Your task to perform on an android device: change the clock display to digital Image 0: 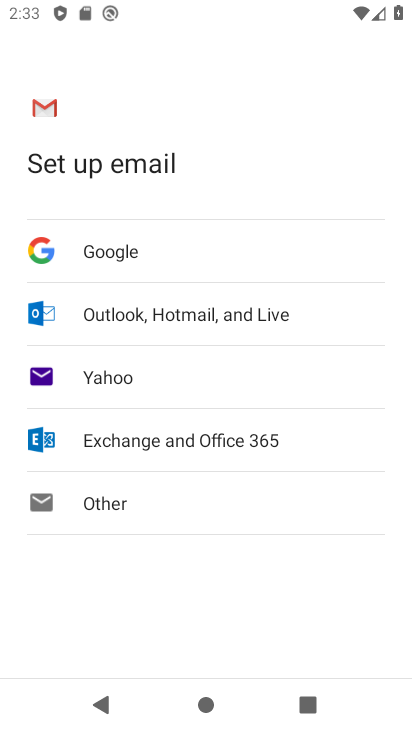
Step 0: press home button
Your task to perform on an android device: change the clock display to digital Image 1: 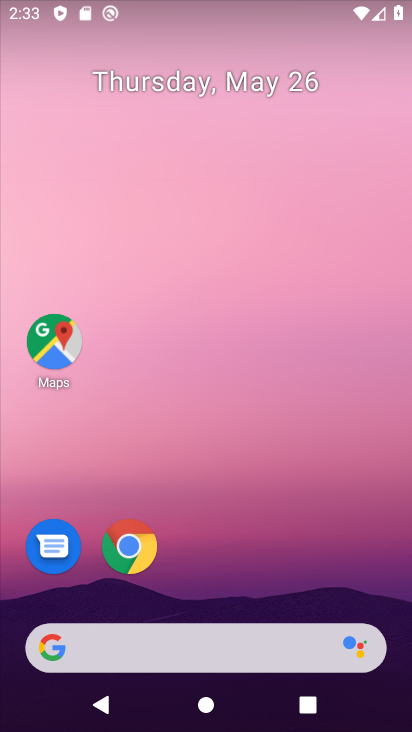
Step 1: drag from (247, 382) to (198, 55)
Your task to perform on an android device: change the clock display to digital Image 2: 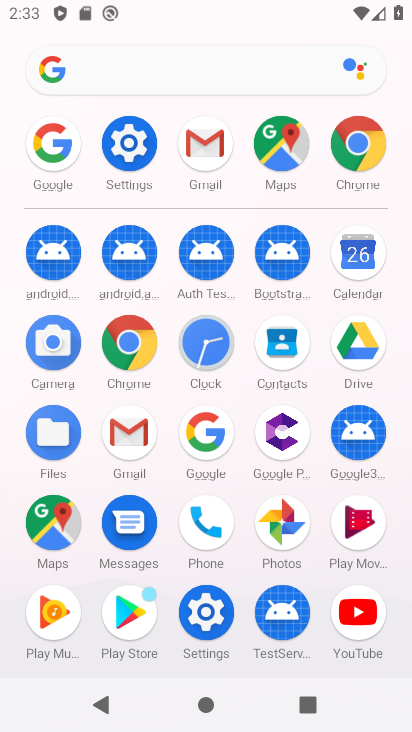
Step 2: click (205, 359)
Your task to perform on an android device: change the clock display to digital Image 3: 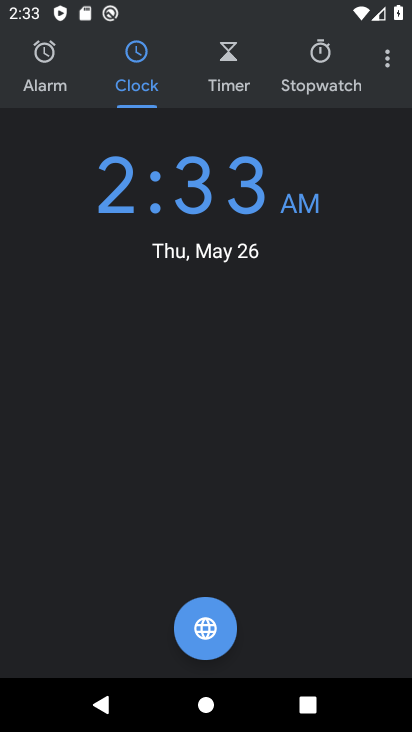
Step 3: click (384, 55)
Your task to perform on an android device: change the clock display to digital Image 4: 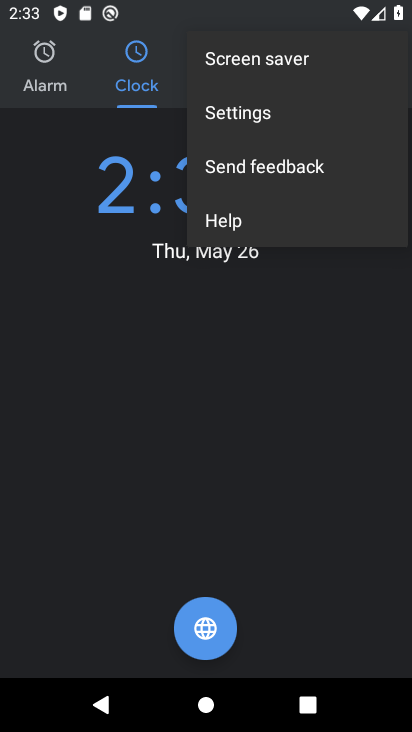
Step 4: click (237, 118)
Your task to perform on an android device: change the clock display to digital Image 5: 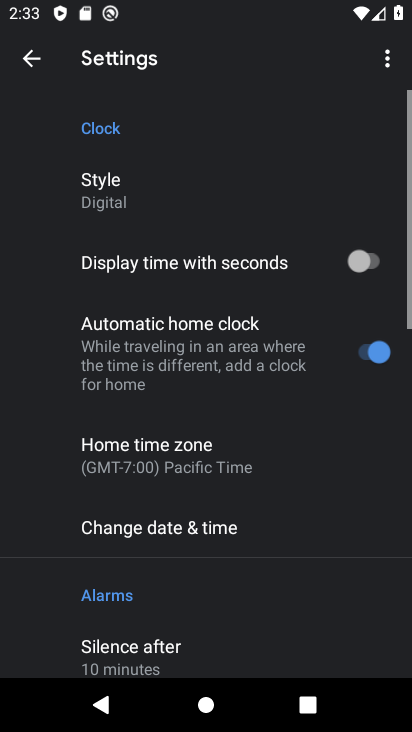
Step 5: click (128, 195)
Your task to perform on an android device: change the clock display to digital Image 6: 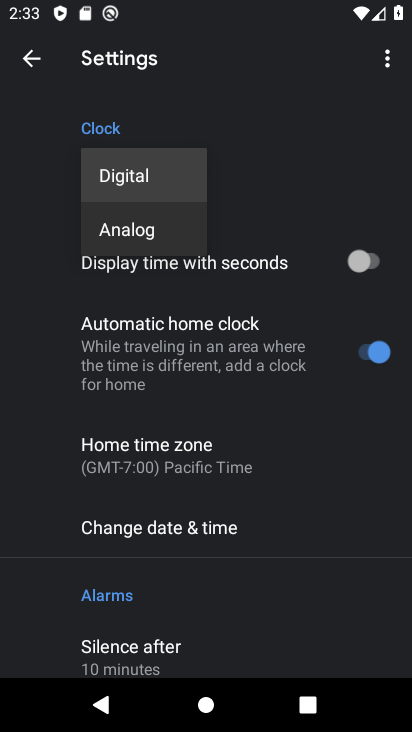
Step 6: task complete